Your task to perform on an android device: Open eBay Image 0: 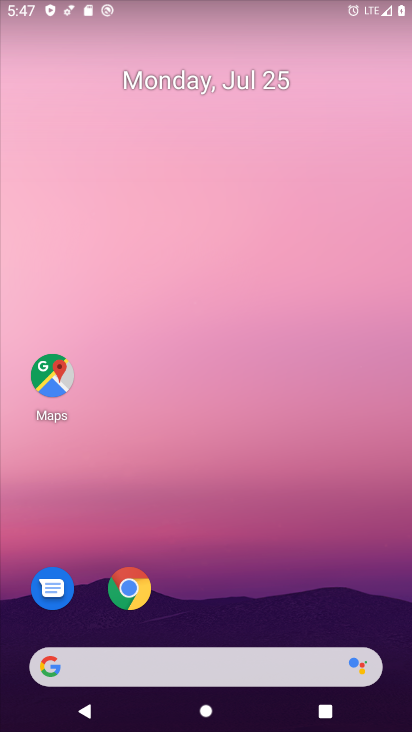
Step 0: click (126, 589)
Your task to perform on an android device: Open eBay Image 1: 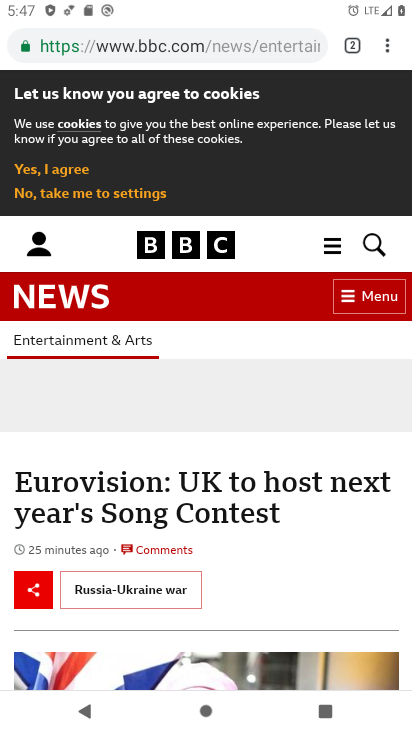
Step 1: click (271, 48)
Your task to perform on an android device: Open eBay Image 2: 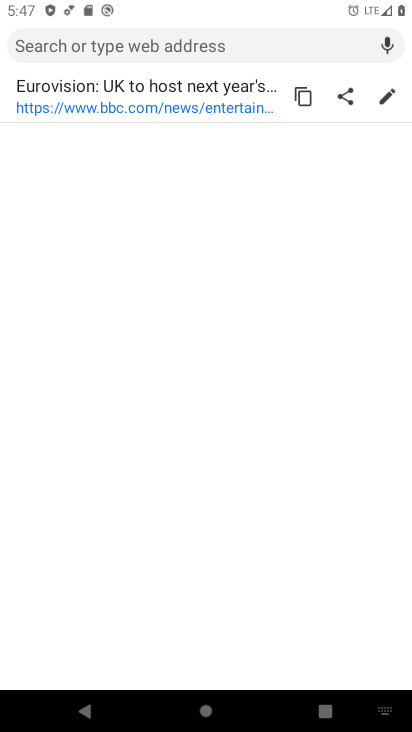
Step 2: type "eBay"
Your task to perform on an android device: Open eBay Image 3: 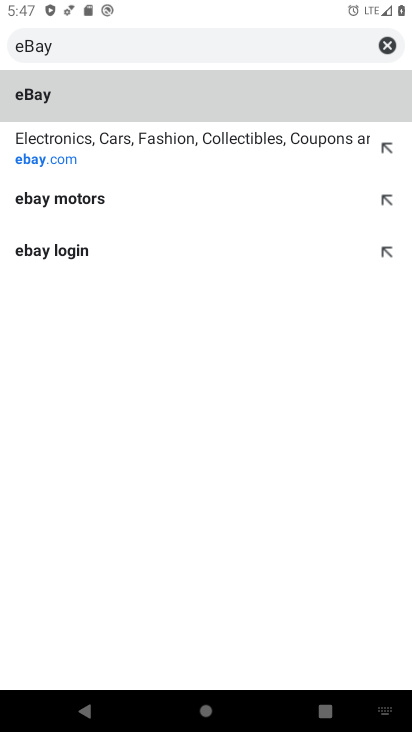
Step 3: click (39, 92)
Your task to perform on an android device: Open eBay Image 4: 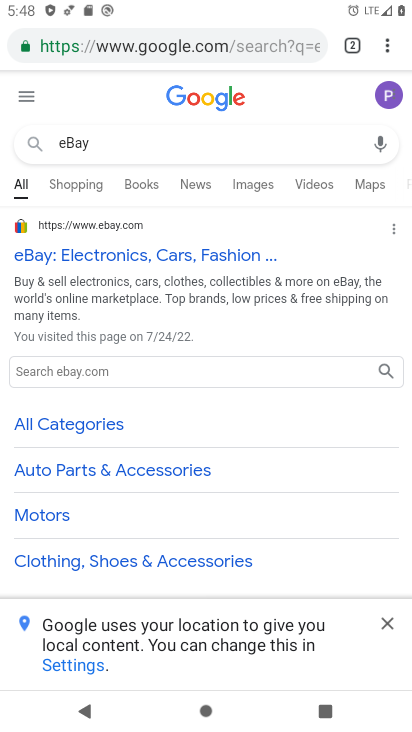
Step 4: click (76, 245)
Your task to perform on an android device: Open eBay Image 5: 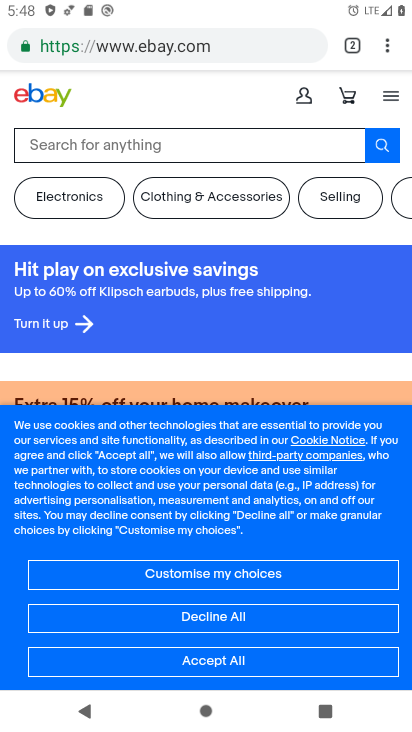
Step 5: task complete